Your task to perform on an android device: Turn off the flashlight Image 0: 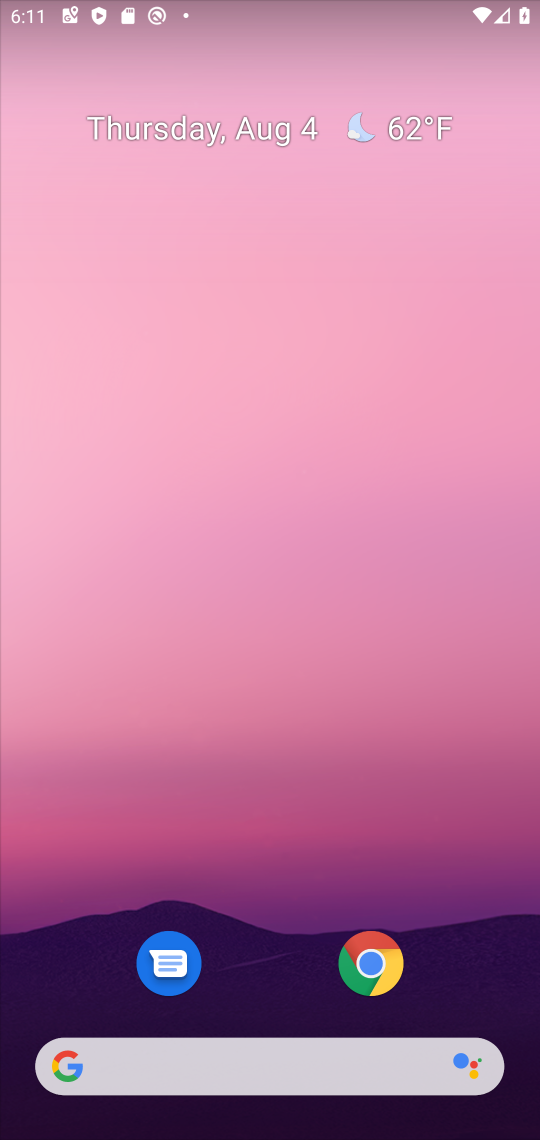
Step 0: drag from (304, 914) to (202, 44)
Your task to perform on an android device: Turn off the flashlight Image 1: 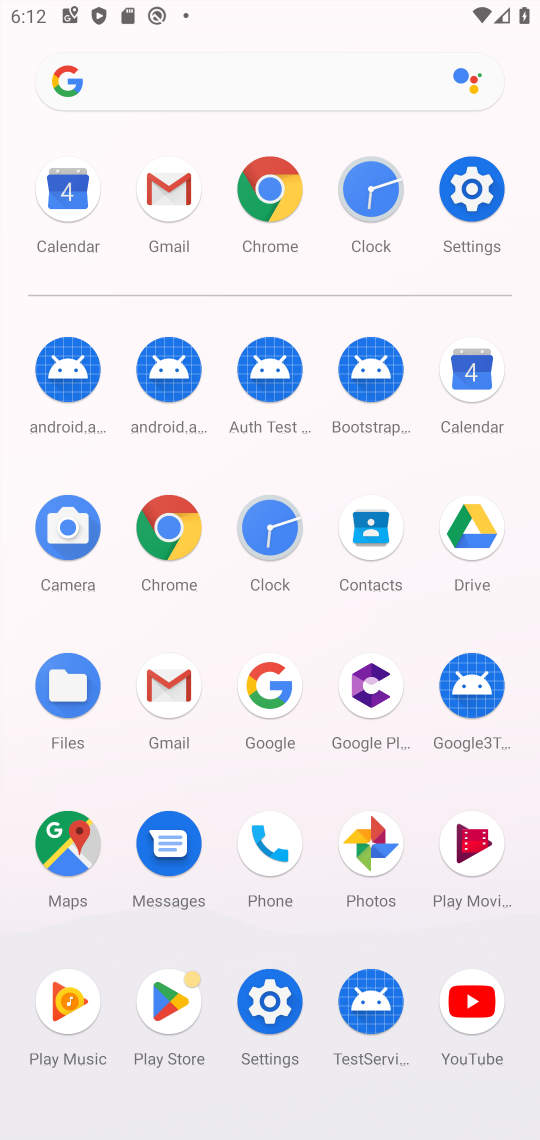
Step 1: click (466, 191)
Your task to perform on an android device: Turn off the flashlight Image 2: 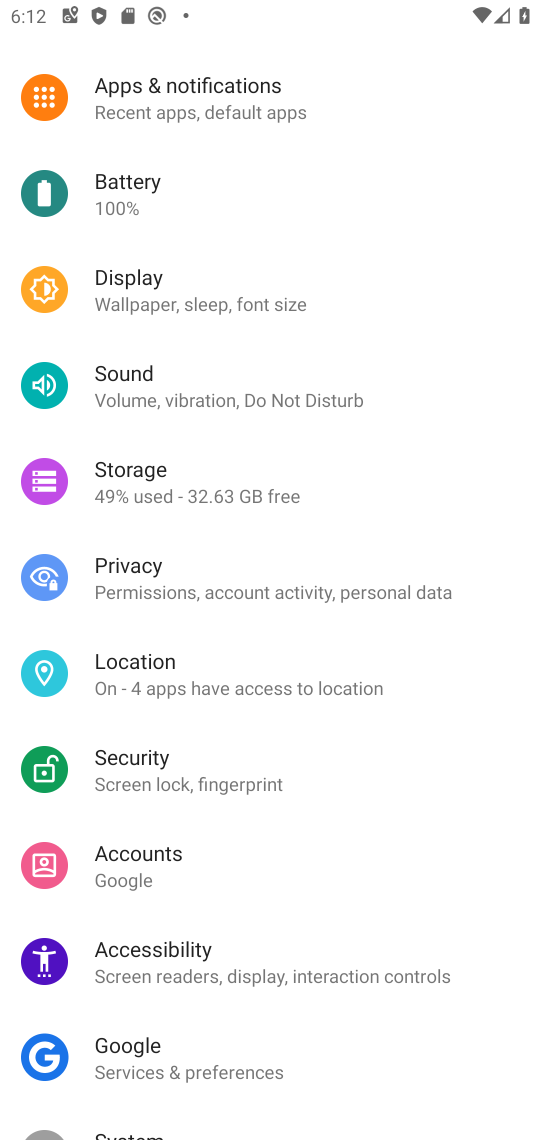
Step 2: click (143, 288)
Your task to perform on an android device: Turn off the flashlight Image 3: 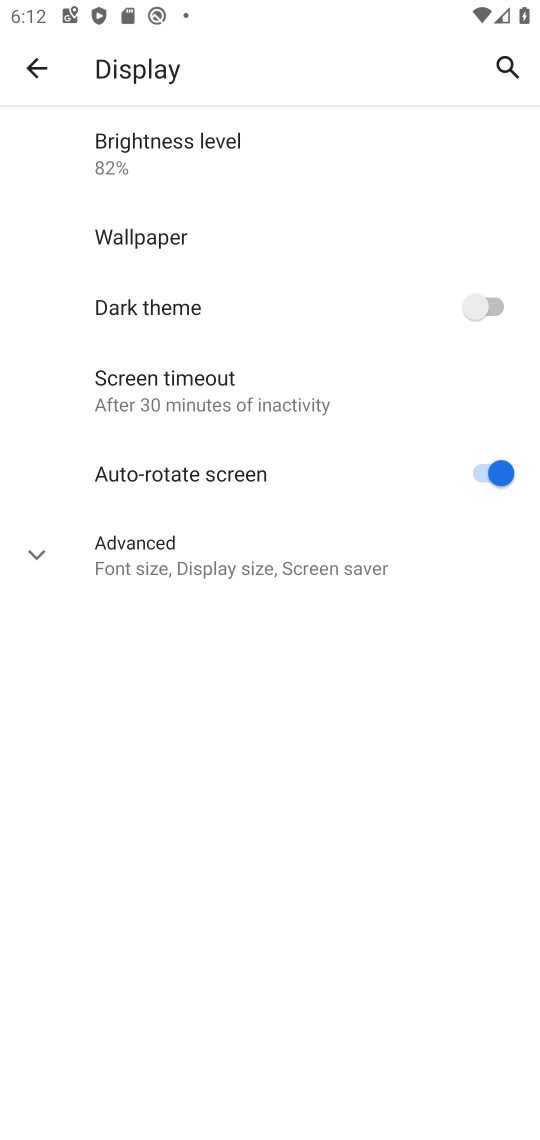
Step 3: task complete